Your task to perform on an android device: turn pop-ups off in chrome Image 0: 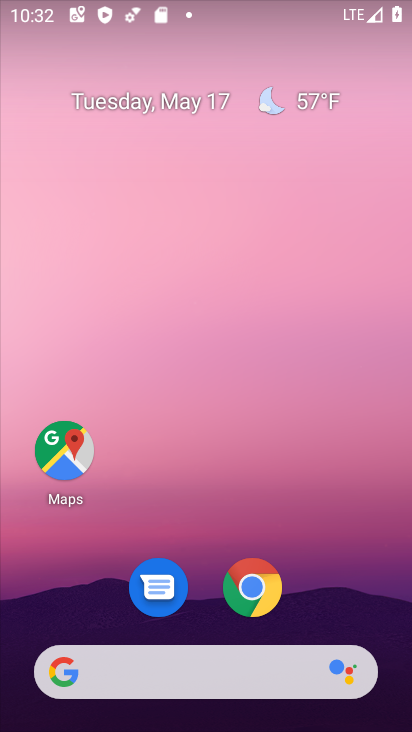
Step 0: drag from (386, 650) to (264, 39)
Your task to perform on an android device: turn pop-ups off in chrome Image 1: 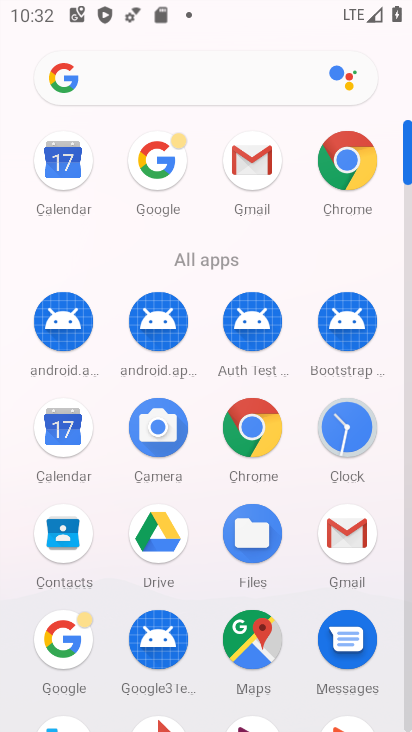
Step 1: click (374, 149)
Your task to perform on an android device: turn pop-ups off in chrome Image 2: 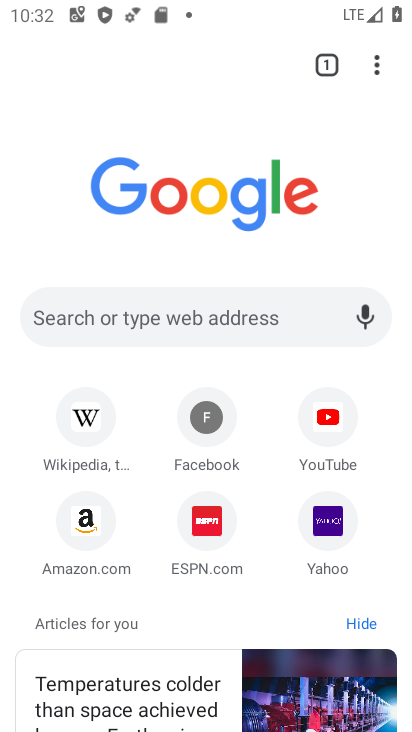
Step 2: click (380, 63)
Your task to perform on an android device: turn pop-ups off in chrome Image 3: 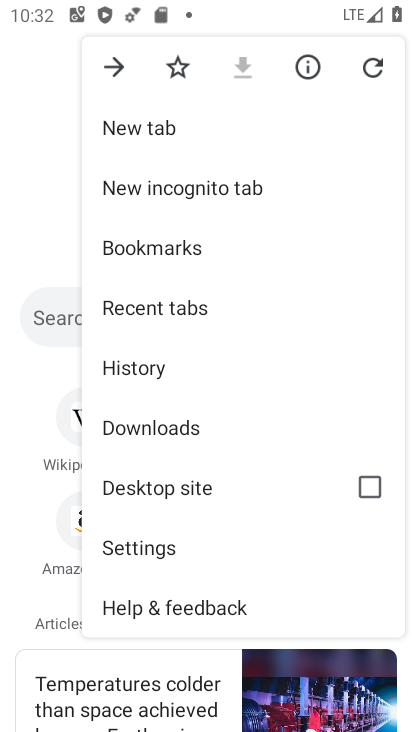
Step 3: click (152, 543)
Your task to perform on an android device: turn pop-ups off in chrome Image 4: 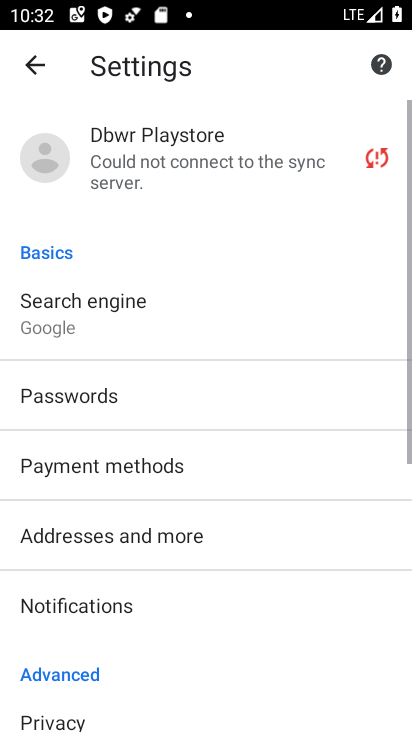
Step 4: drag from (93, 631) to (124, 166)
Your task to perform on an android device: turn pop-ups off in chrome Image 5: 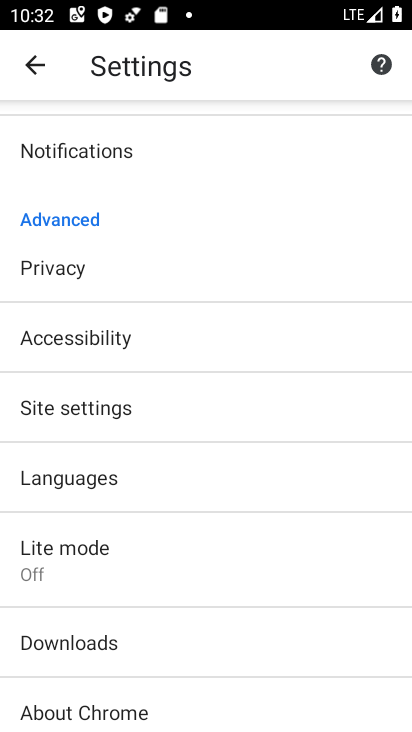
Step 5: click (128, 398)
Your task to perform on an android device: turn pop-ups off in chrome Image 6: 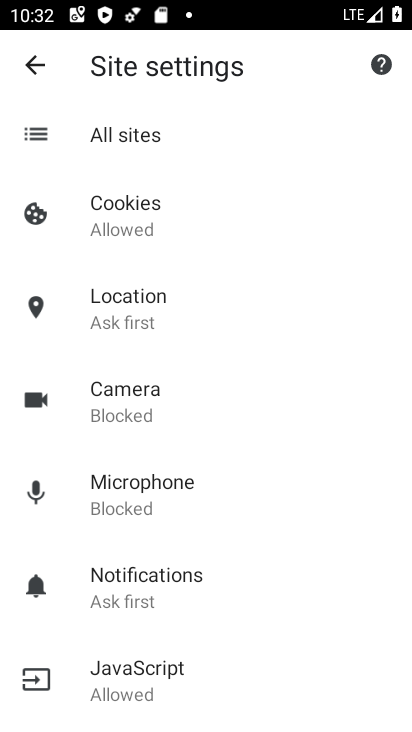
Step 6: drag from (184, 669) to (174, 286)
Your task to perform on an android device: turn pop-ups off in chrome Image 7: 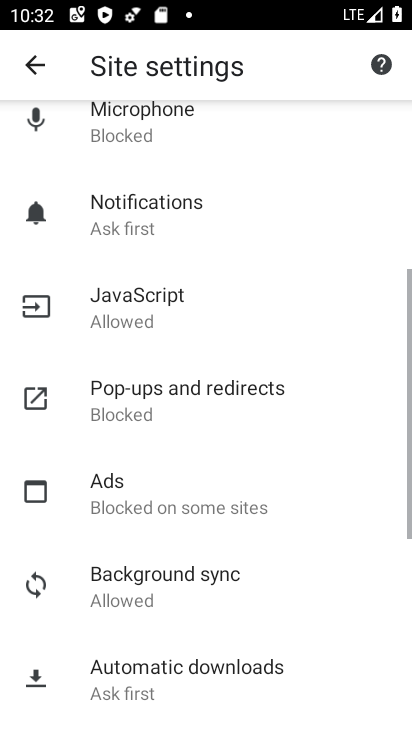
Step 7: click (166, 427)
Your task to perform on an android device: turn pop-ups off in chrome Image 8: 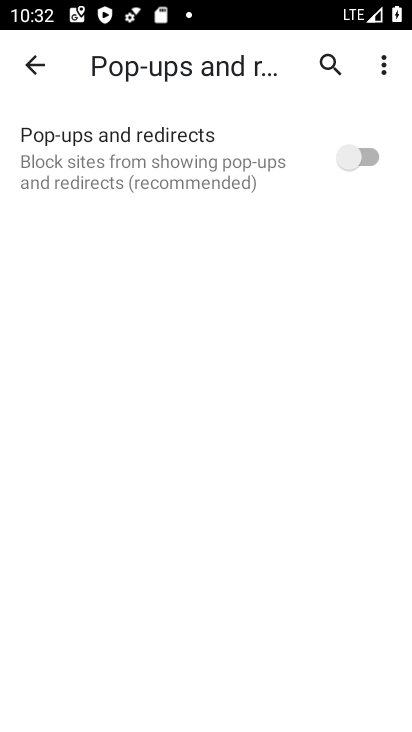
Step 8: click (332, 150)
Your task to perform on an android device: turn pop-ups off in chrome Image 9: 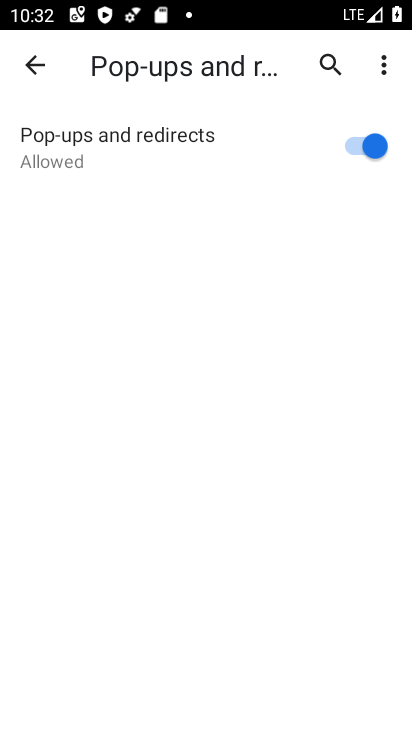
Step 9: click (332, 150)
Your task to perform on an android device: turn pop-ups off in chrome Image 10: 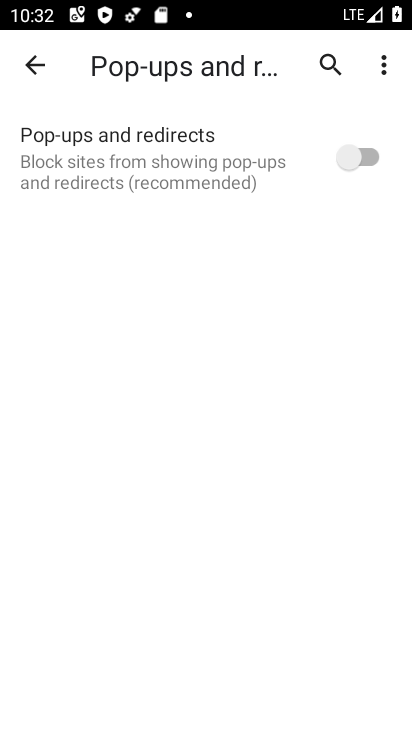
Step 10: task complete